Your task to perform on an android device: check out phone information Image 0: 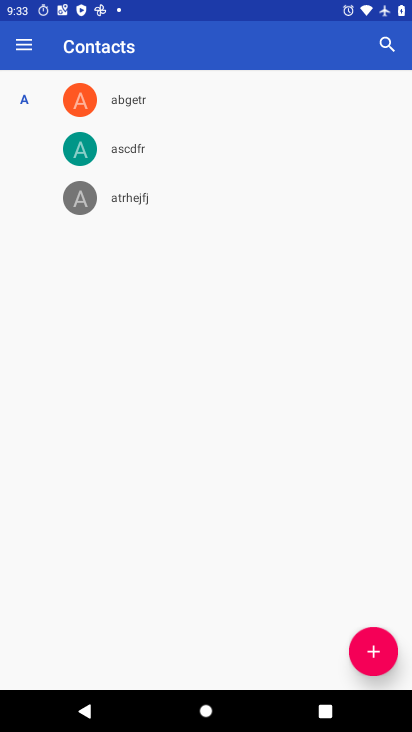
Step 0: press home button
Your task to perform on an android device: check out phone information Image 1: 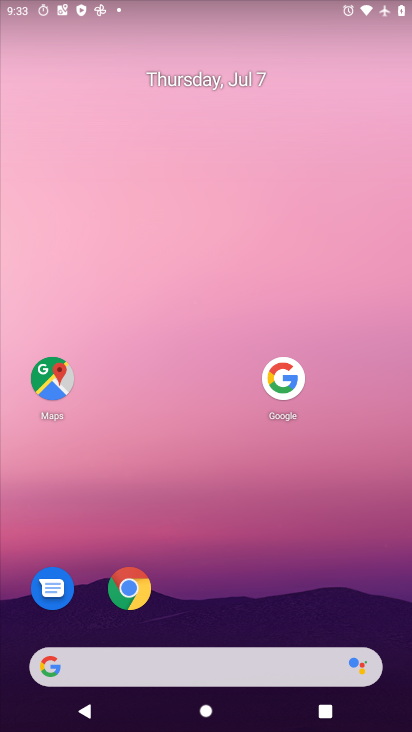
Step 1: drag from (162, 676) to (328, 11)
Your task to perform on an android device: check out phone information Image 2: 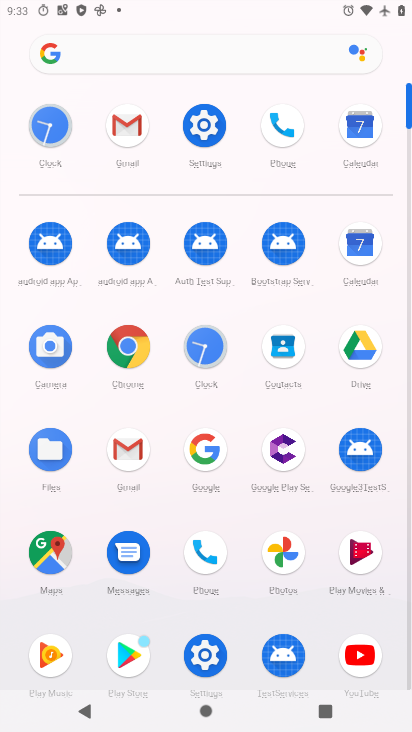
Step 2: click (203, 120)
Your task to perform on an android device: check out phone information Image 3: 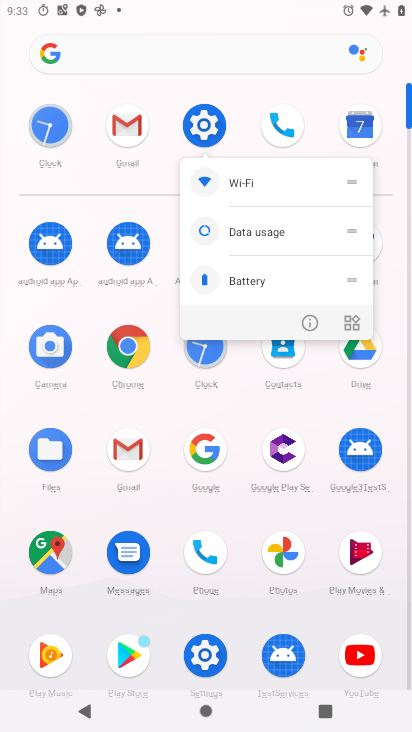
Step 3: click (193, 128)
Your task to perform on an android device: check out phone information Image 4: 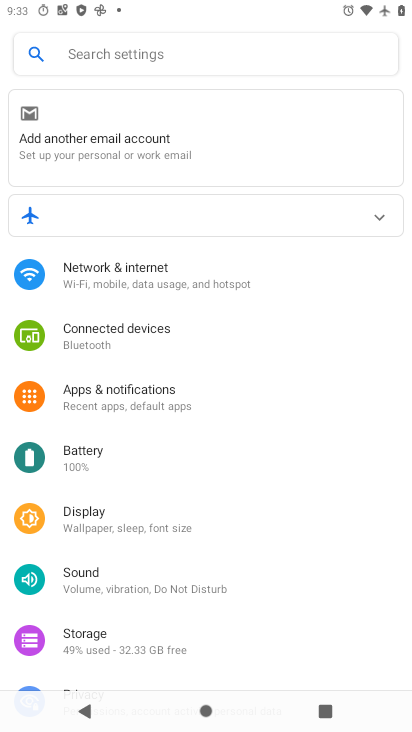
Step 4: drag from (242, 652) to (386, 119)
Your task to perform on an android device: check out phone information Image 5: 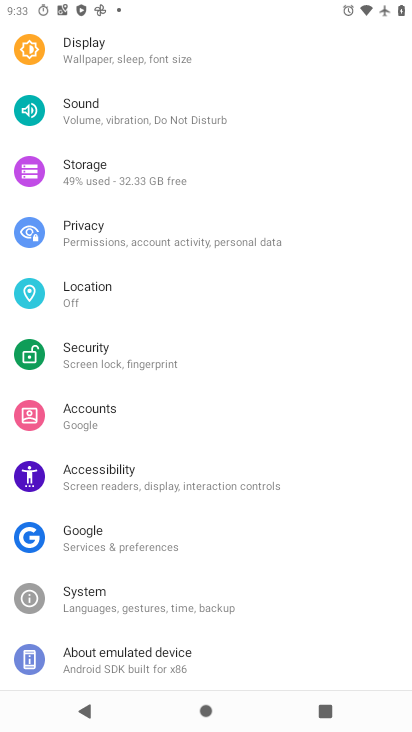
Step 5: drag from (188, 660) to (339, 21)
Your task to perform on an android device: check out phone information Image 6: 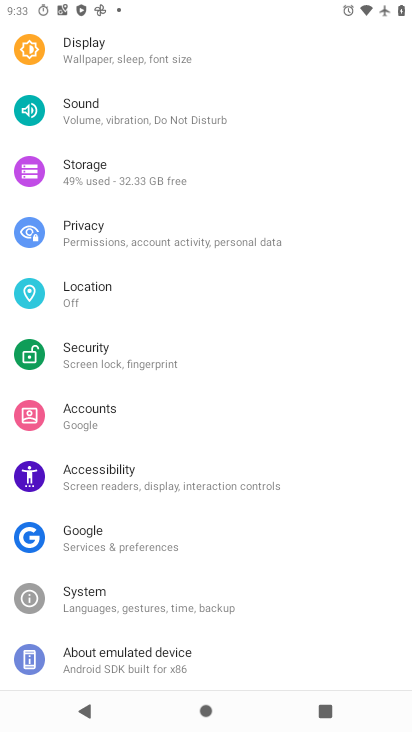
Step 6: click (161, 667)
Your task to perform on an android device: check out phone information Image 7: 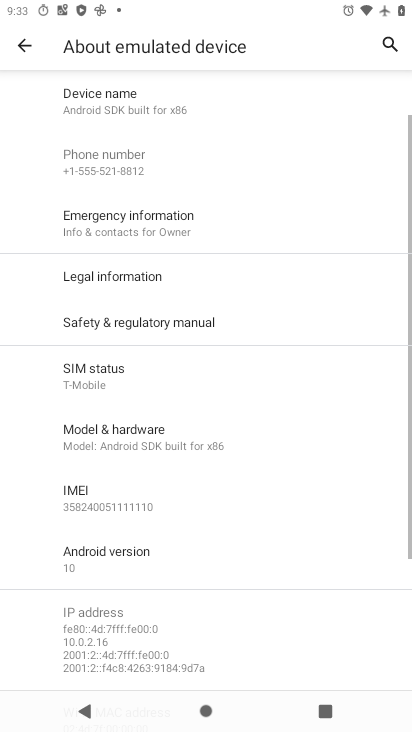
Step 7: task complete